Your task to perform on an android device: Open settings on Google Maps Image 0: 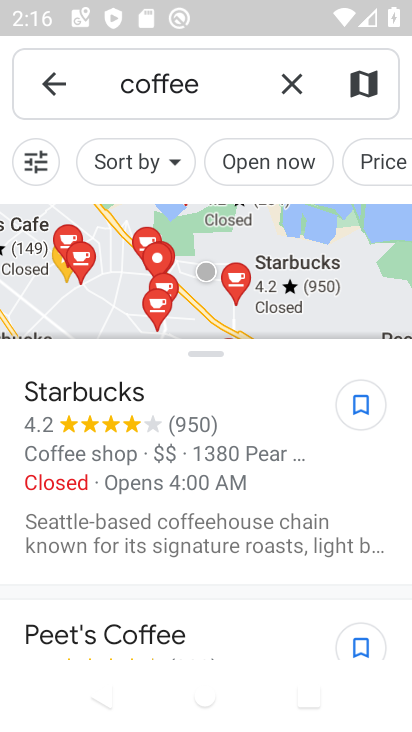
Step 0: press home button
Your task to perform on an android device: Open settings on Google Maps Image 1: 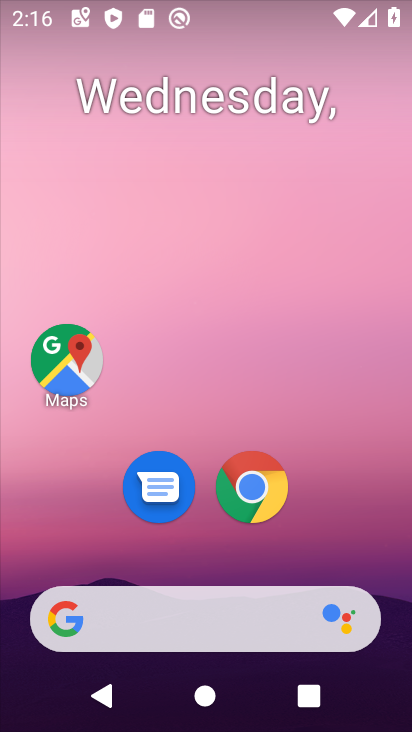
Step 1: click (62, 356)
Your task to perform on an android device: Open settings on Google Maps Image 2: 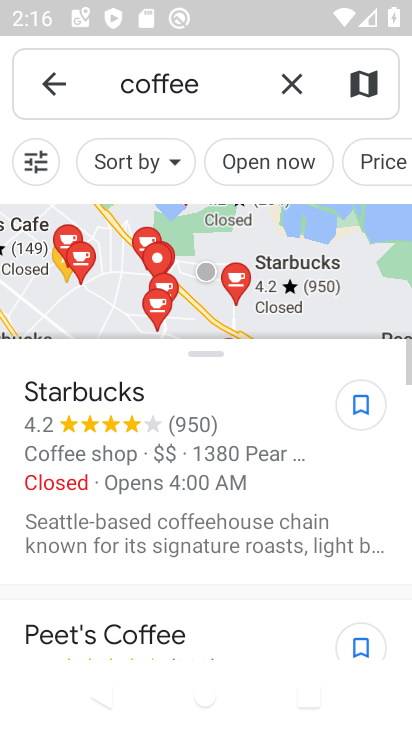
Step 2: click (290, 86)
Your task to perform on an android device: Open settings on Google Maps Image 3: 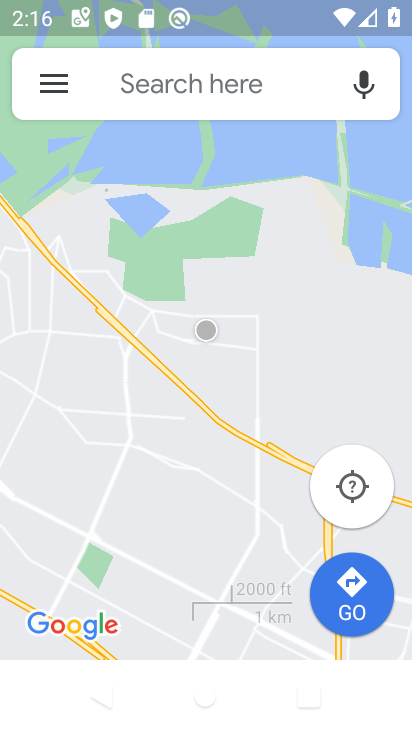
Step 3: click (46, 81)
Your task to perform on an android device: Open settings on Google Maps Image 4: 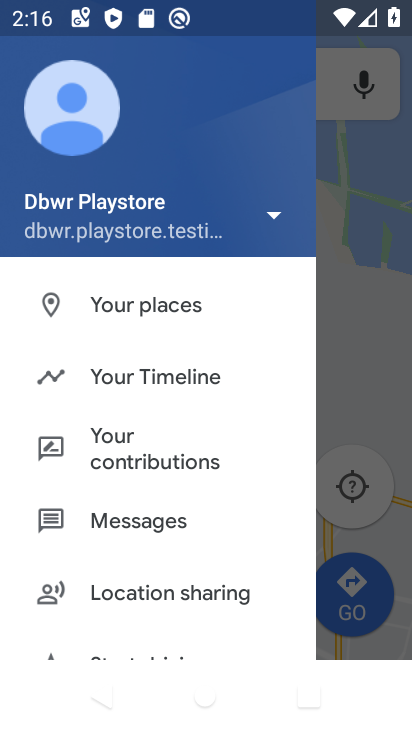
Step 4: drag from (199, 495) to (172, 46)
Your task to perform on an android device: Open settings on Google Maps Image 5: 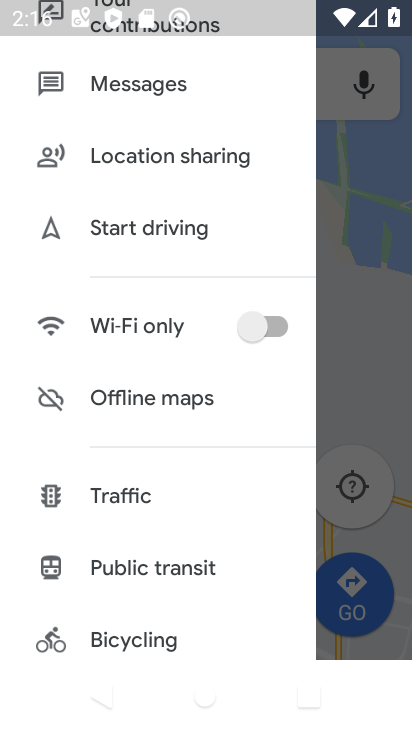
Step 5: drag from (191, 532) to (179, 111)
Your task to perform on an android device: Open settings on Google Maps Image 6: 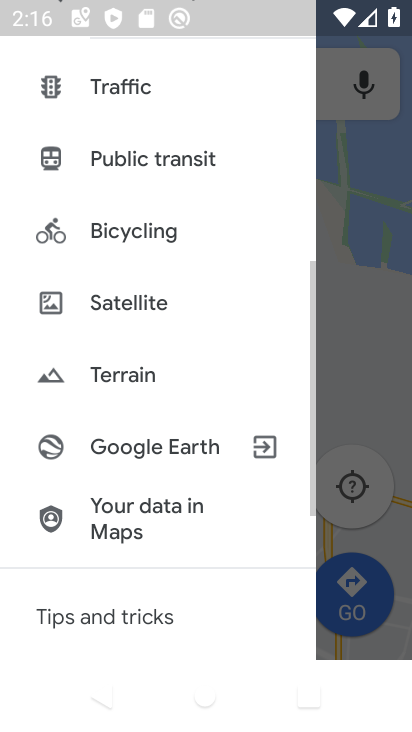
Step 6: drag from (157, 540) to (124, 190)
Your task to perform on an android device: Open settings on Google Maps Image 7: 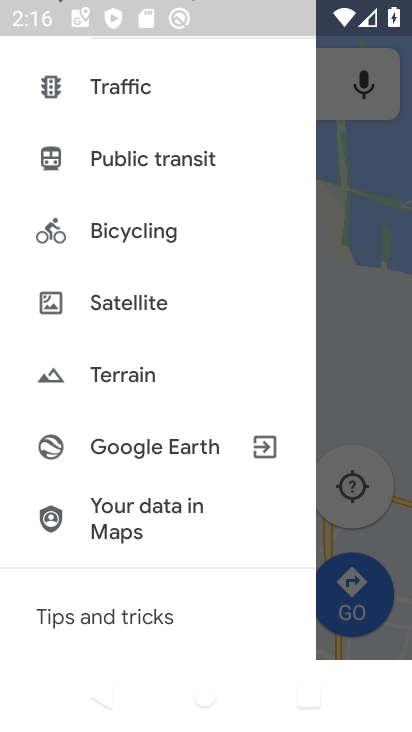
Step 7: drag from (188, 598) to (139, 207)
Your task to perform on an android device: Open settings on Google Maps Image 8: 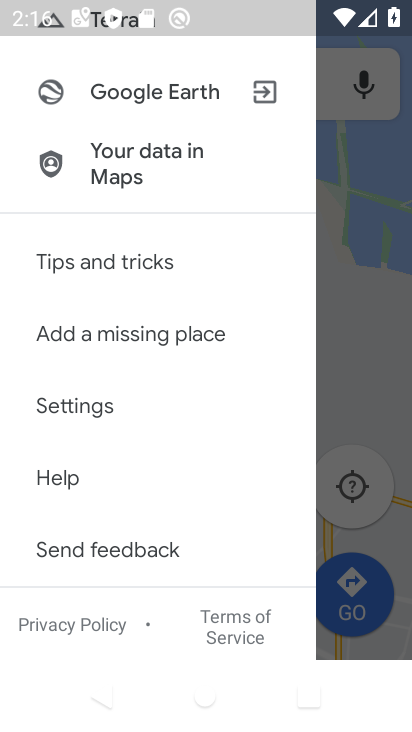
Step 8: click (58, 402)
Your task to perform on an android device: Open settings on Google Maps Image 9: 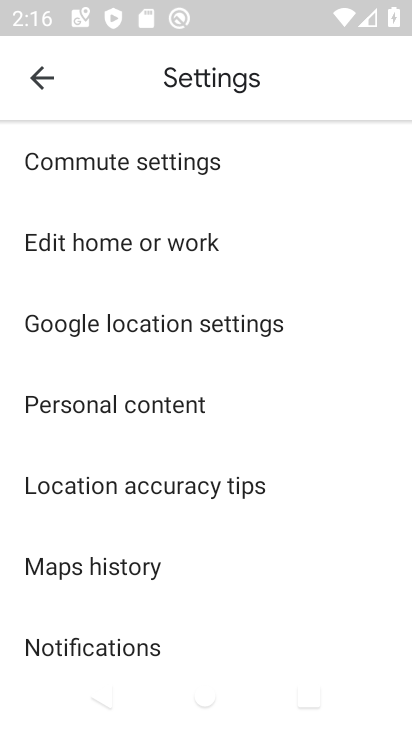
Step 9: task complete